Your task to perform on an android device: read, delete, or share a saved page in the chrome app Image 0: 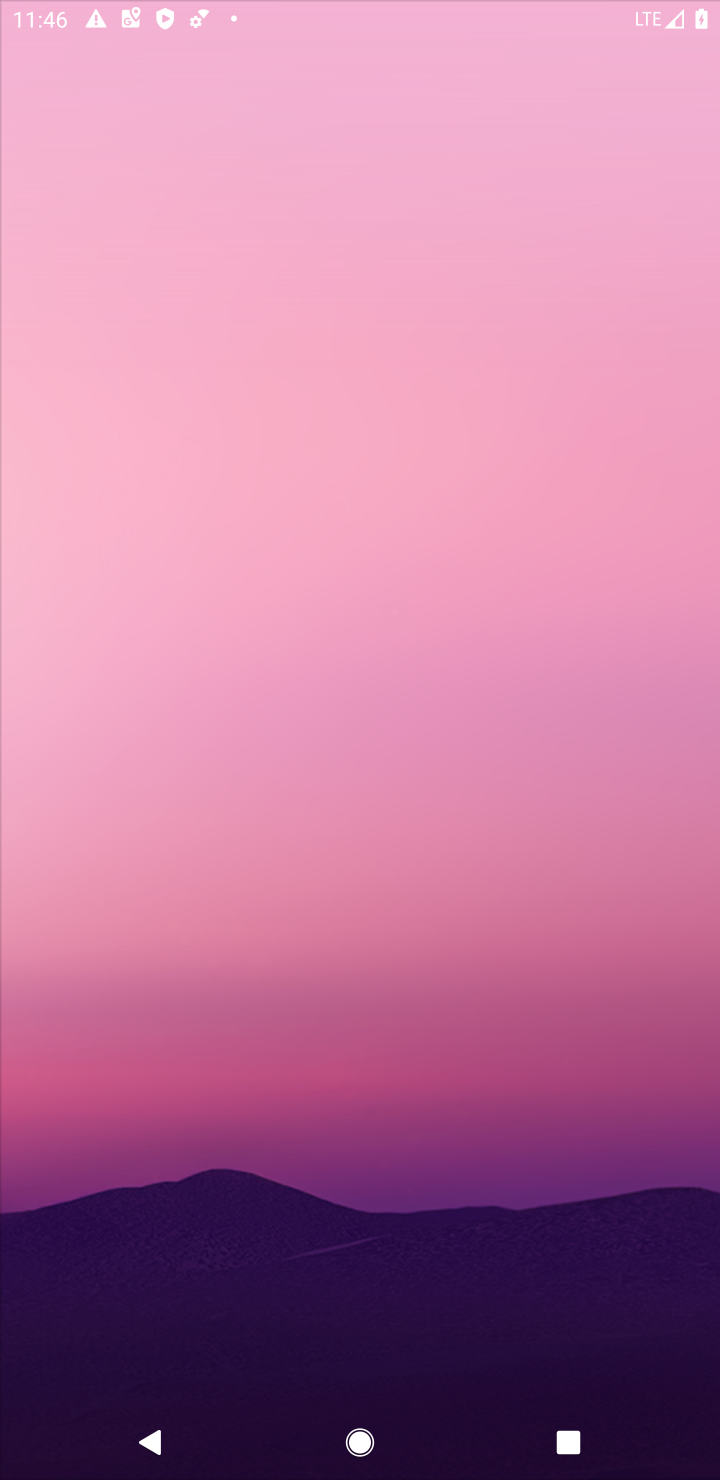
Step 0: click (415, 562)
Your task to perform on an android device: read, delete, or share a saved page in the chrome app Image 1: 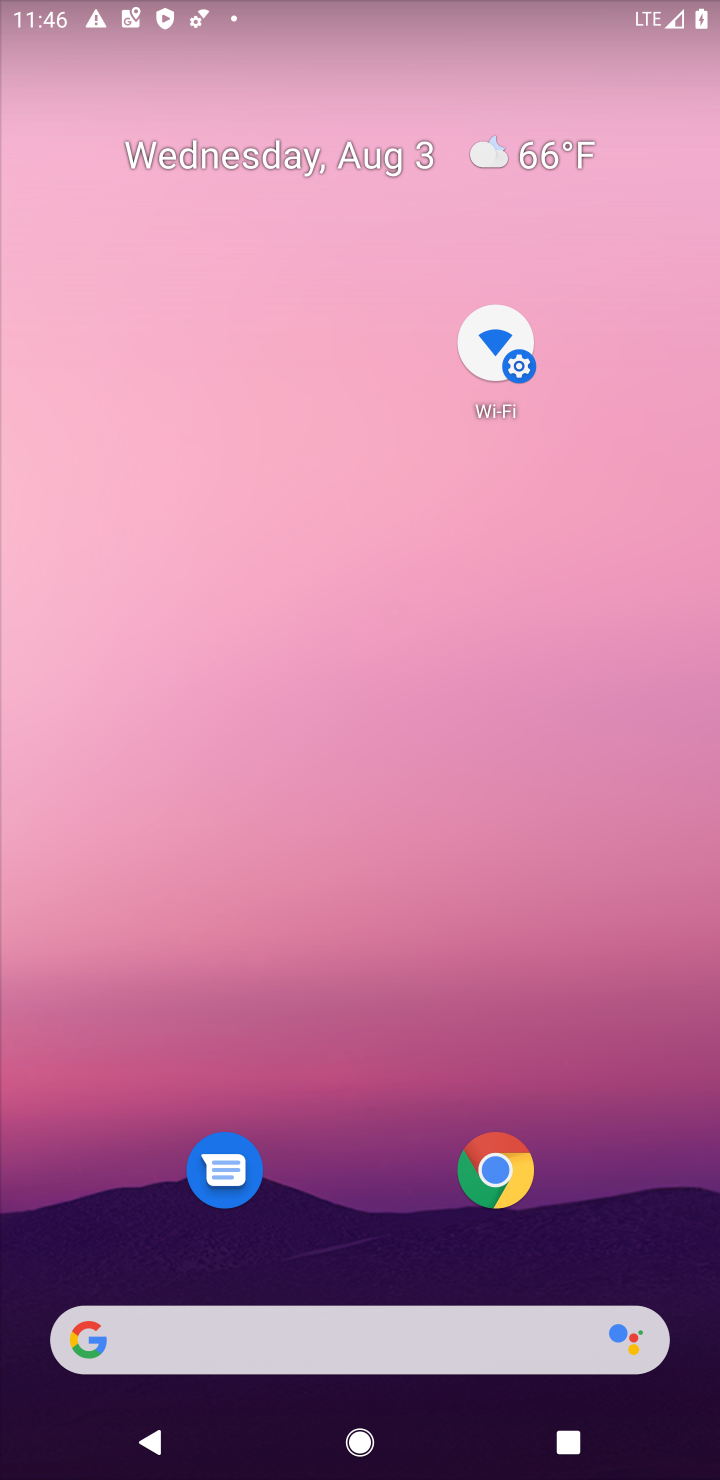
Step 1: drag from (316, 1178) to (220, 279)
Your task to perform on an android device: read, delete, or share a saved page in the chrome app Image 2: 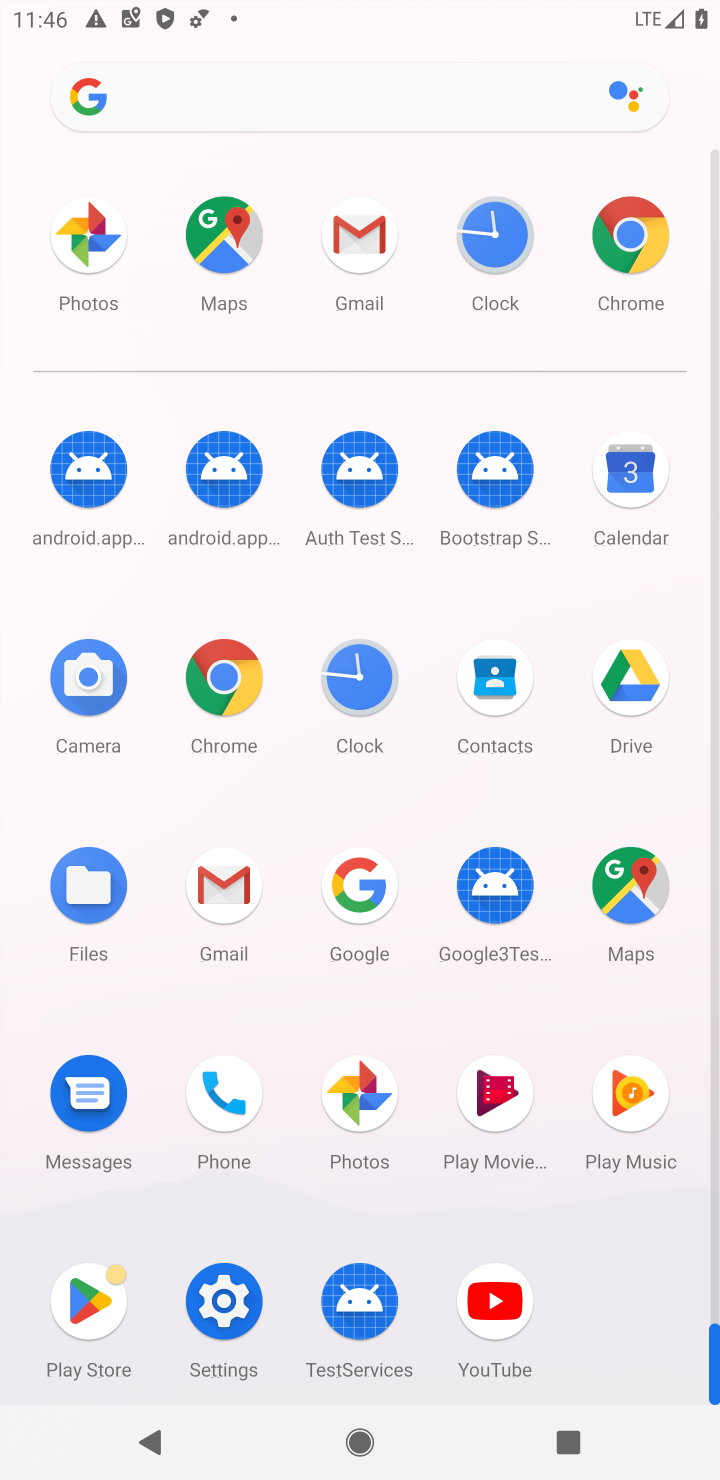
Step 2: click (235, 669)
Your task to perform on an android device: read, delete, or share a saved page in the chrome app Image 3: 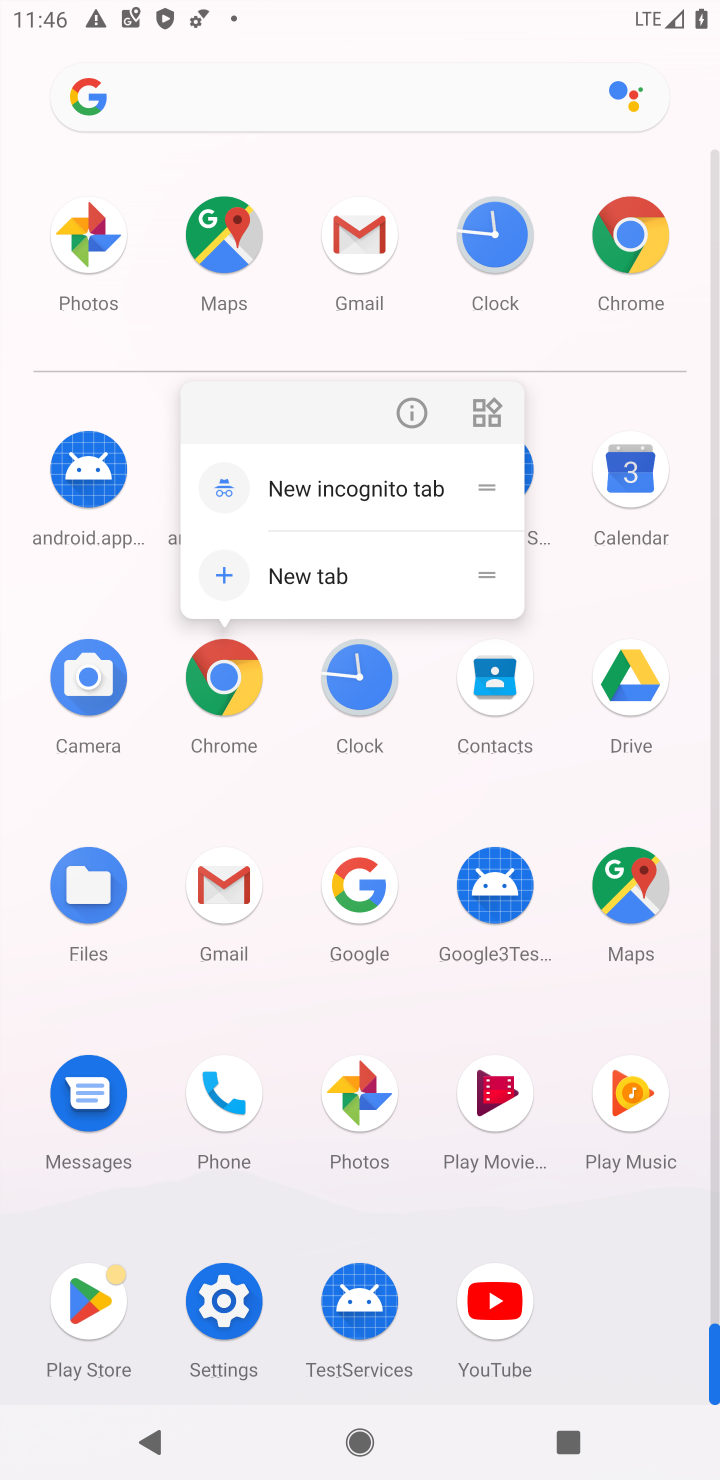
Step 3: click (394, 420)
Your task to perform on an android device: read, delete, or share a saved page in the chrome app Image 4: 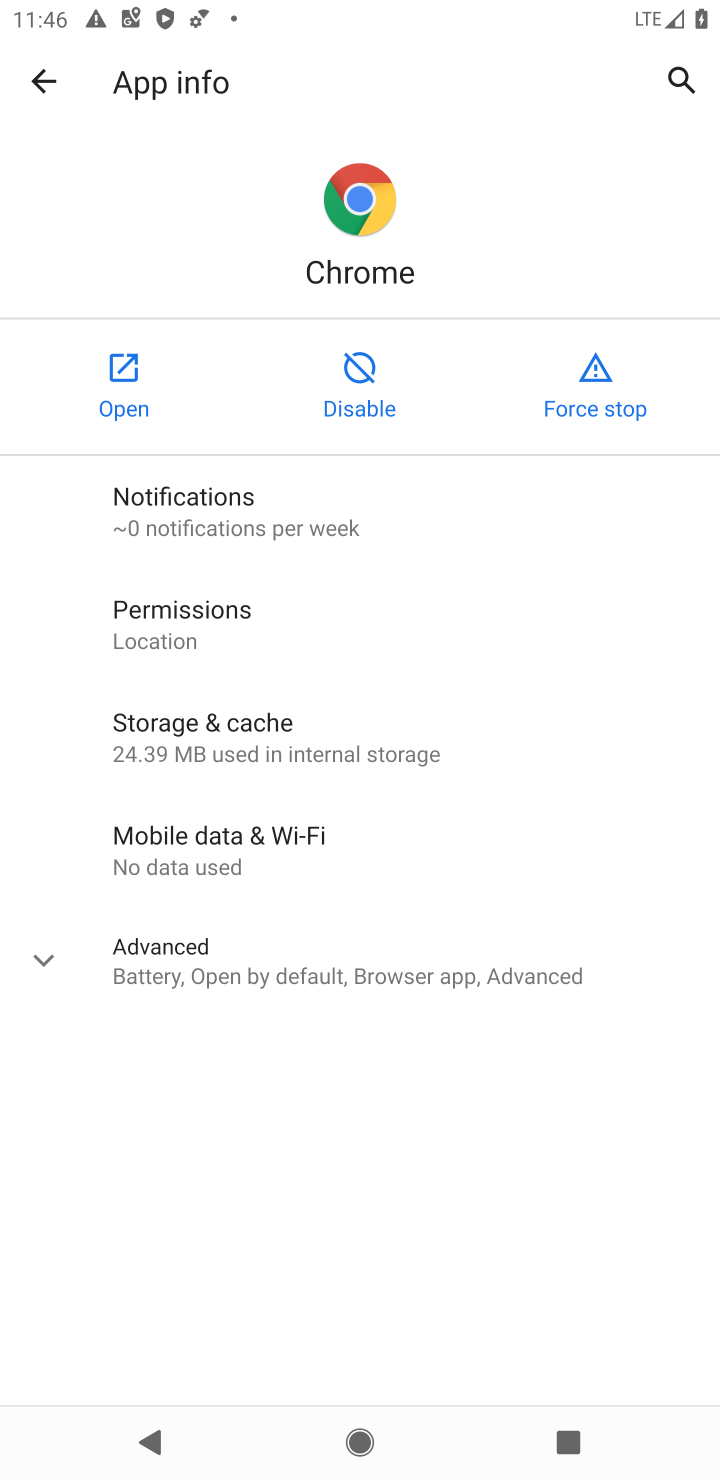
Step 4: click (115, 365)
Your task to perform on an android device: read, delete, or share a saved page in the chrome app Image 5: 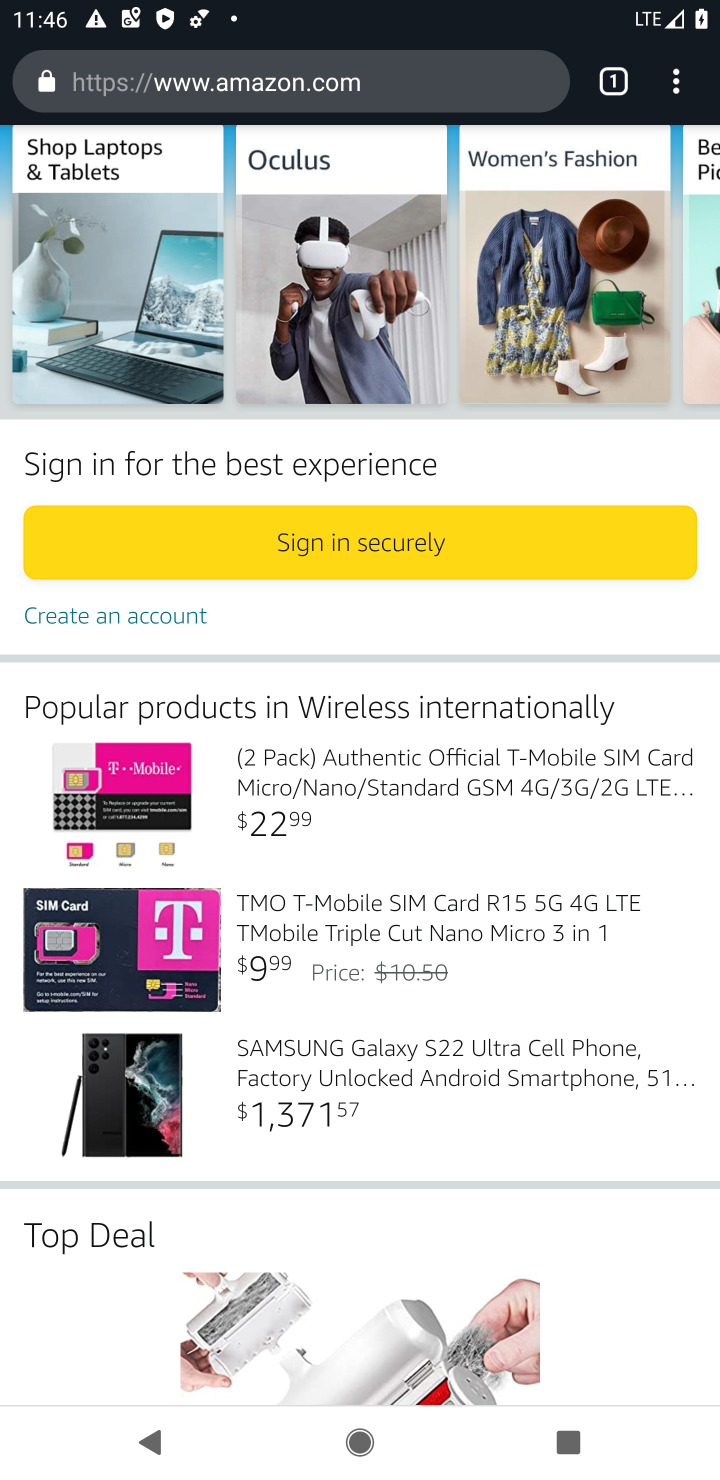
Step 5: drag from (638, 101) to (517, 542)
Your task to perform on an android device: read, delete, or share a saved page in the chrome app Image 6: 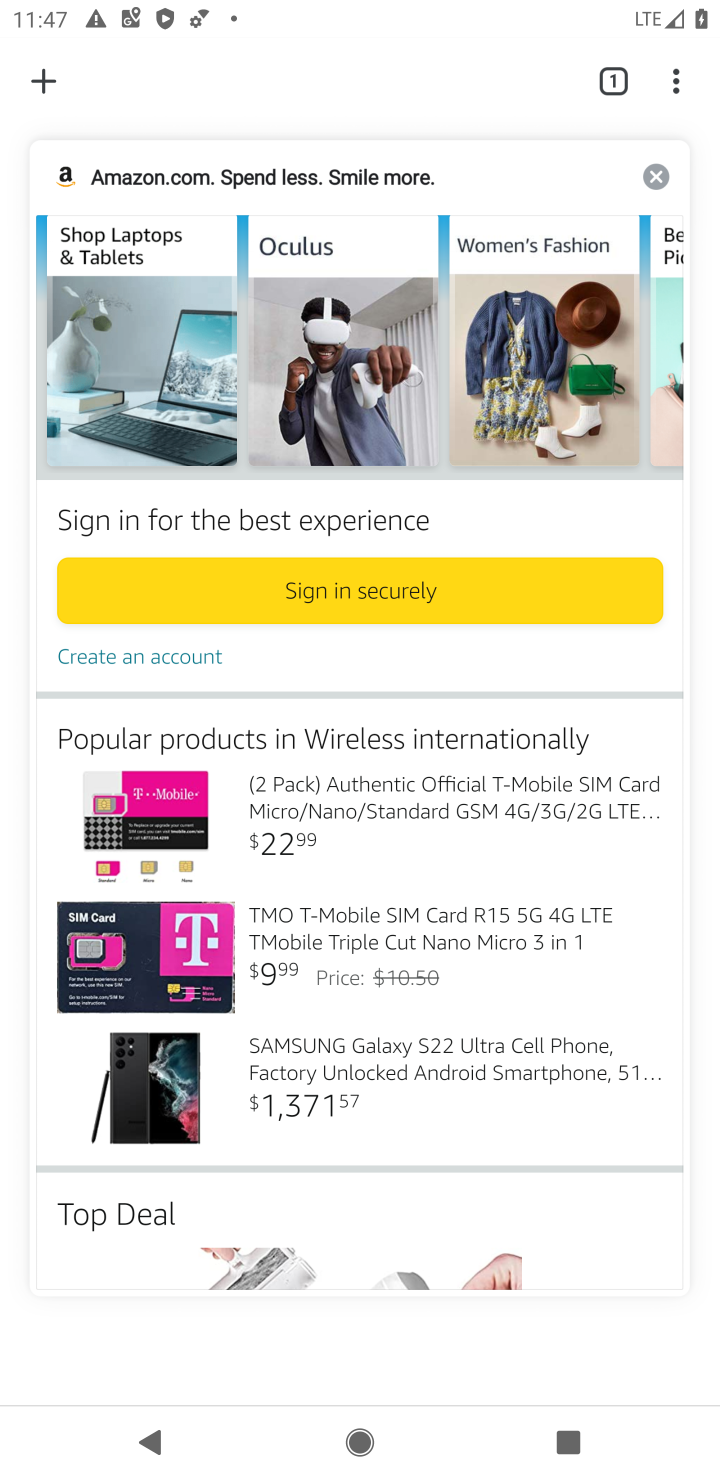
Step 6: click (490, 428)
Your task to perform on an android device: read, delete, or share a saved page in the chrome app Image 7: 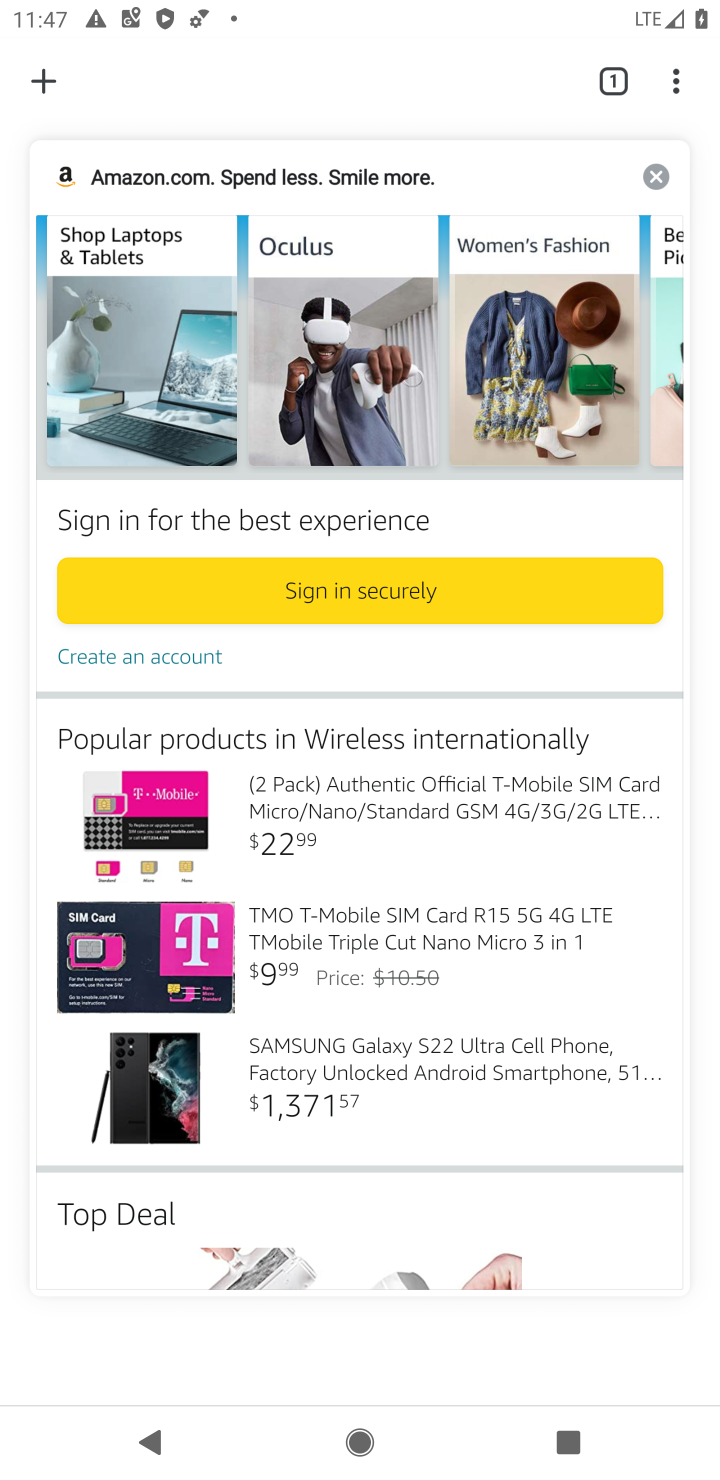
Step 7: click (570, 674)
Your task to perform on an android device: read, delete, or share a saved page in the chrome app Image 8: 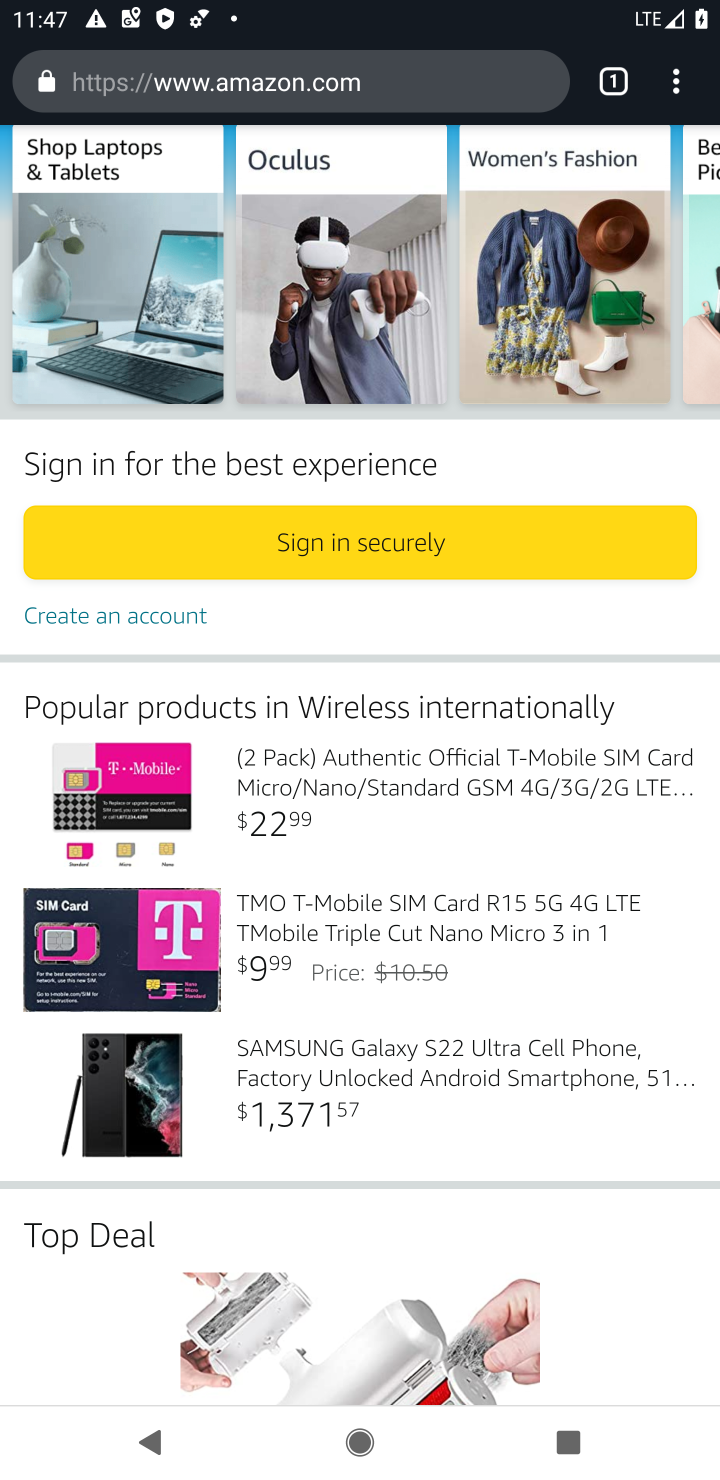
Step 8: drag from (675, 95) to (500, 318)
Your task to perform on an android device: read, delete, or share a saved page in the chrome app Image 9: 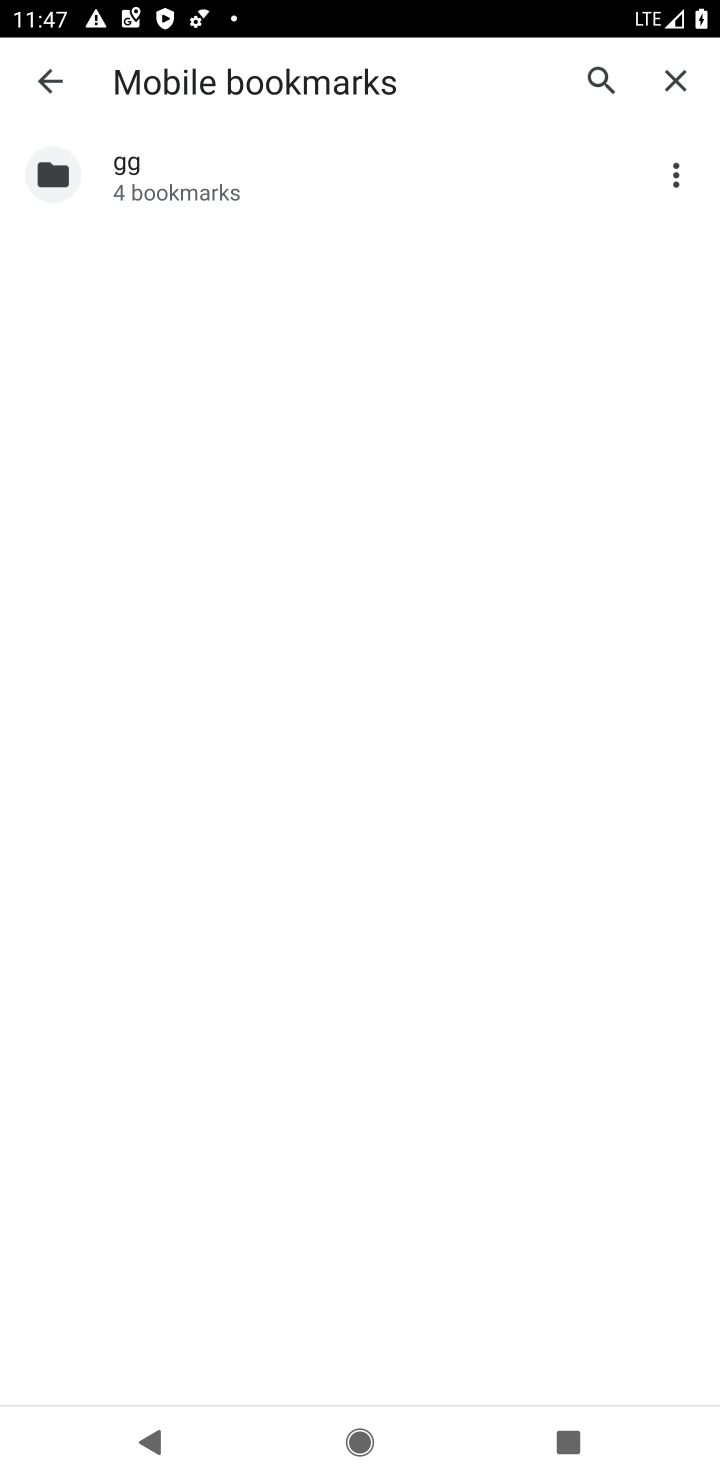
Step 9: drag from (226, 1011) to (290, 462)
Your task to perform on an android device: read, delete, or share a saved page in the chrome app Image 10: 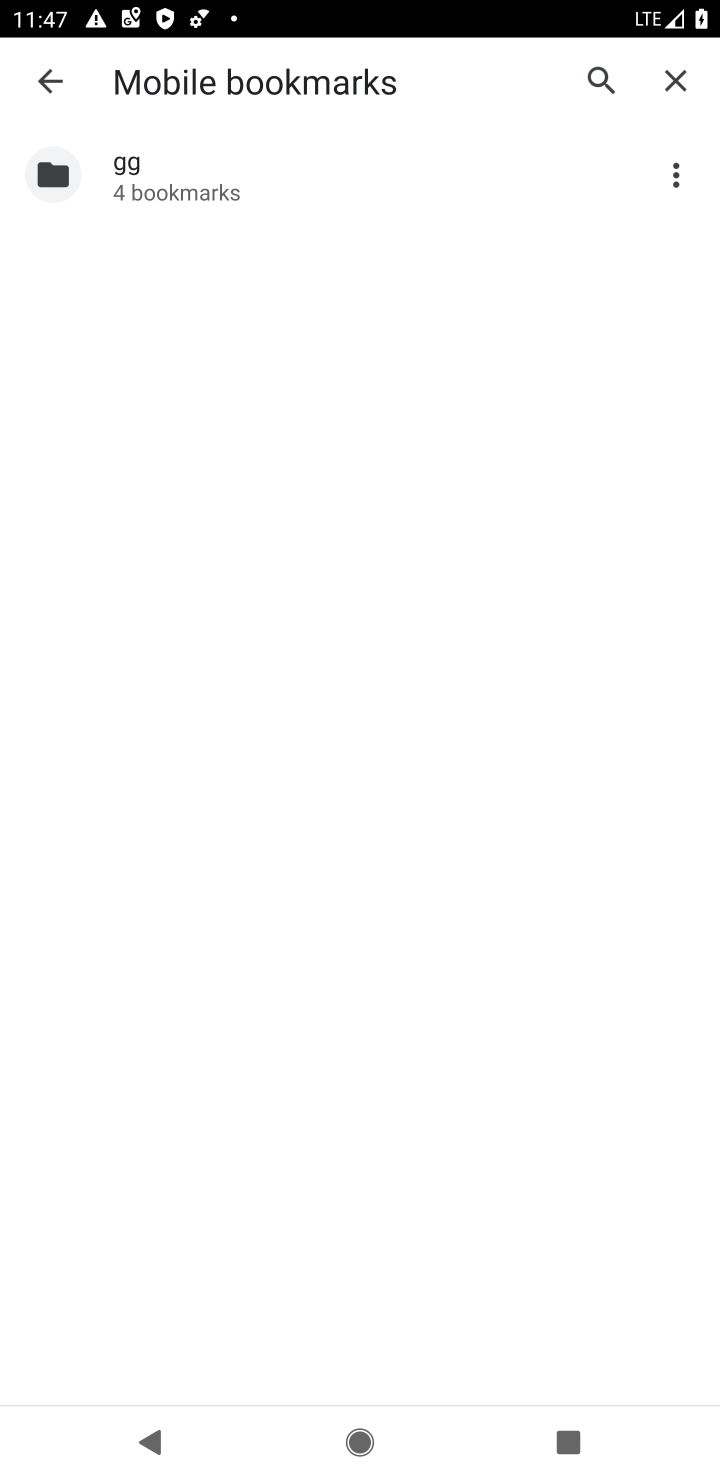
Step 10: click (215, 167)
Your task to perform on an android device: read, delete, or share a saved page in the chrome app Image 11: 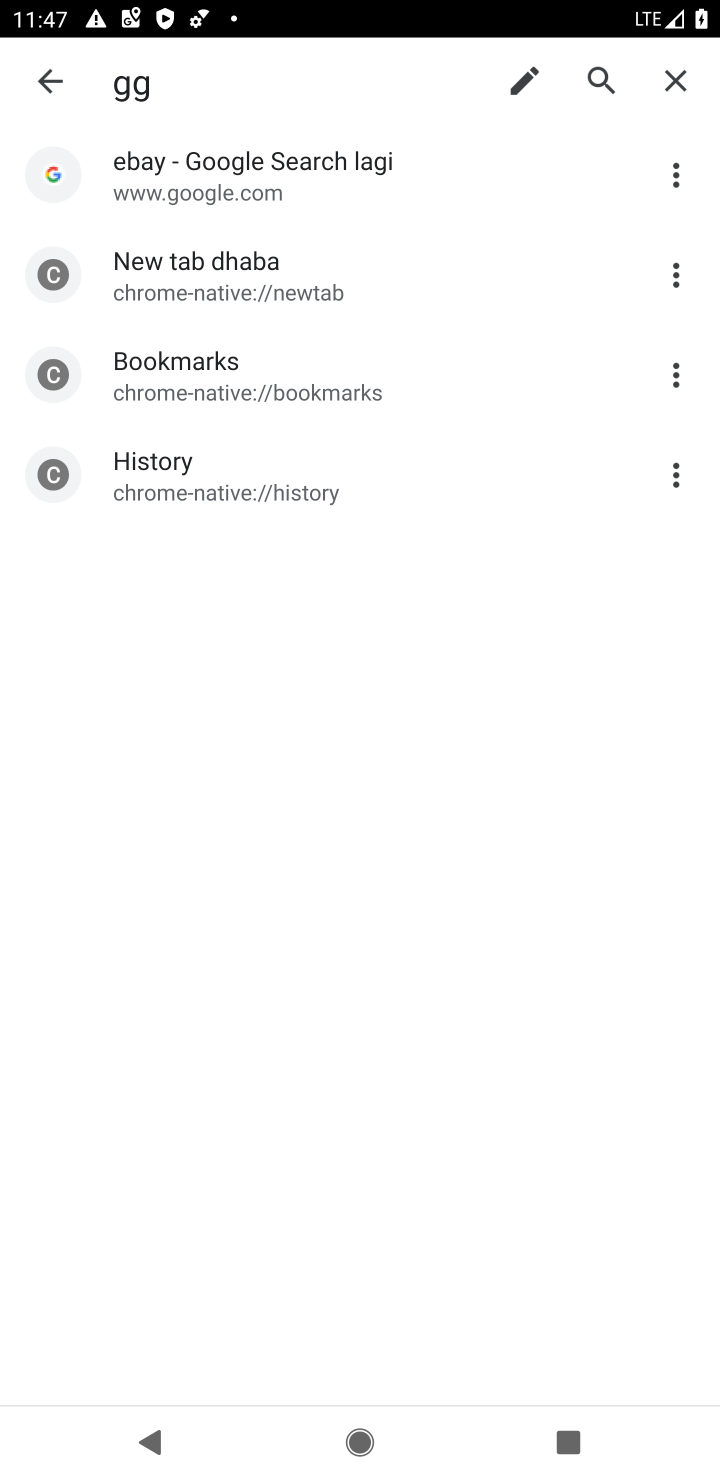
Step 11: click (193, 254)
Your task to perform on an android device: read, delete, or share a saved page in the chrome app Image 12: 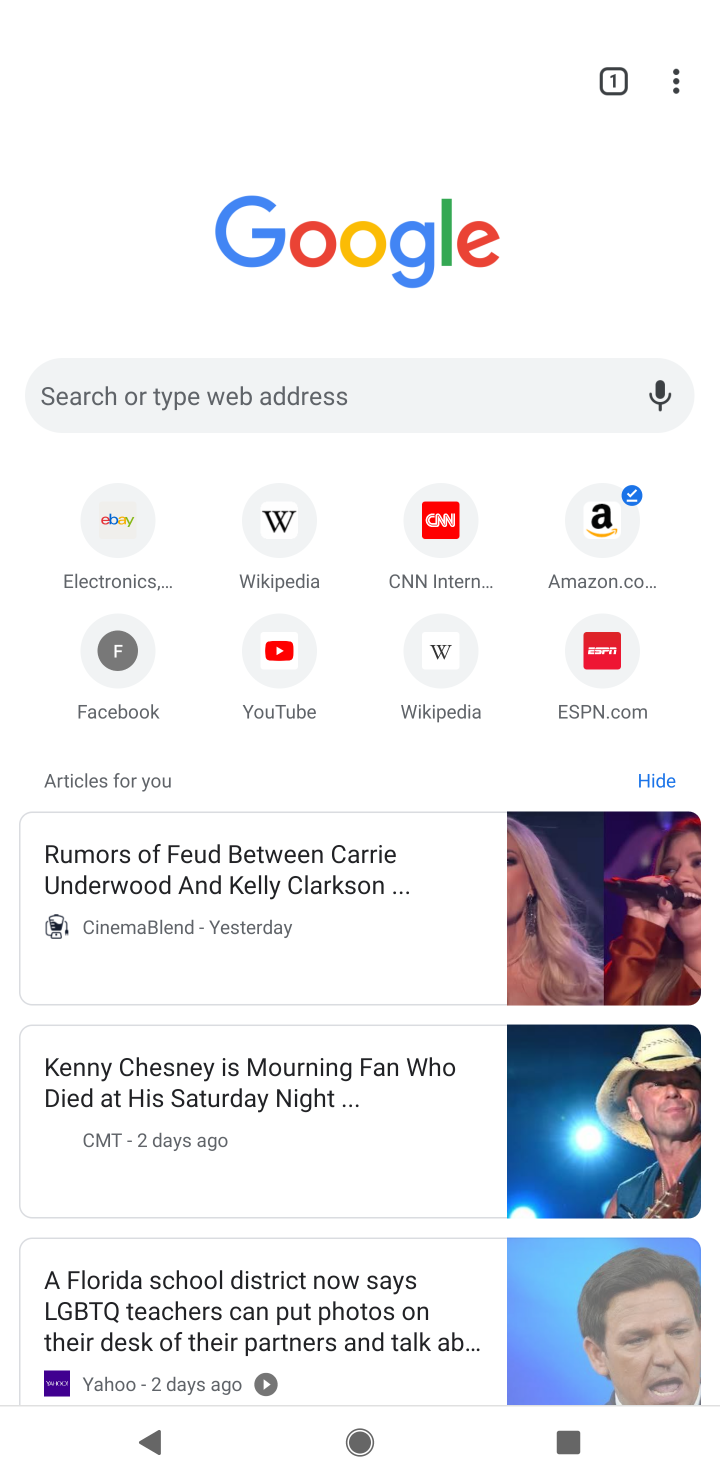
Step 12: click (211, 263)
Your task to perform on an android device: read, delete, or share a saved page in the chrome app Image 13: 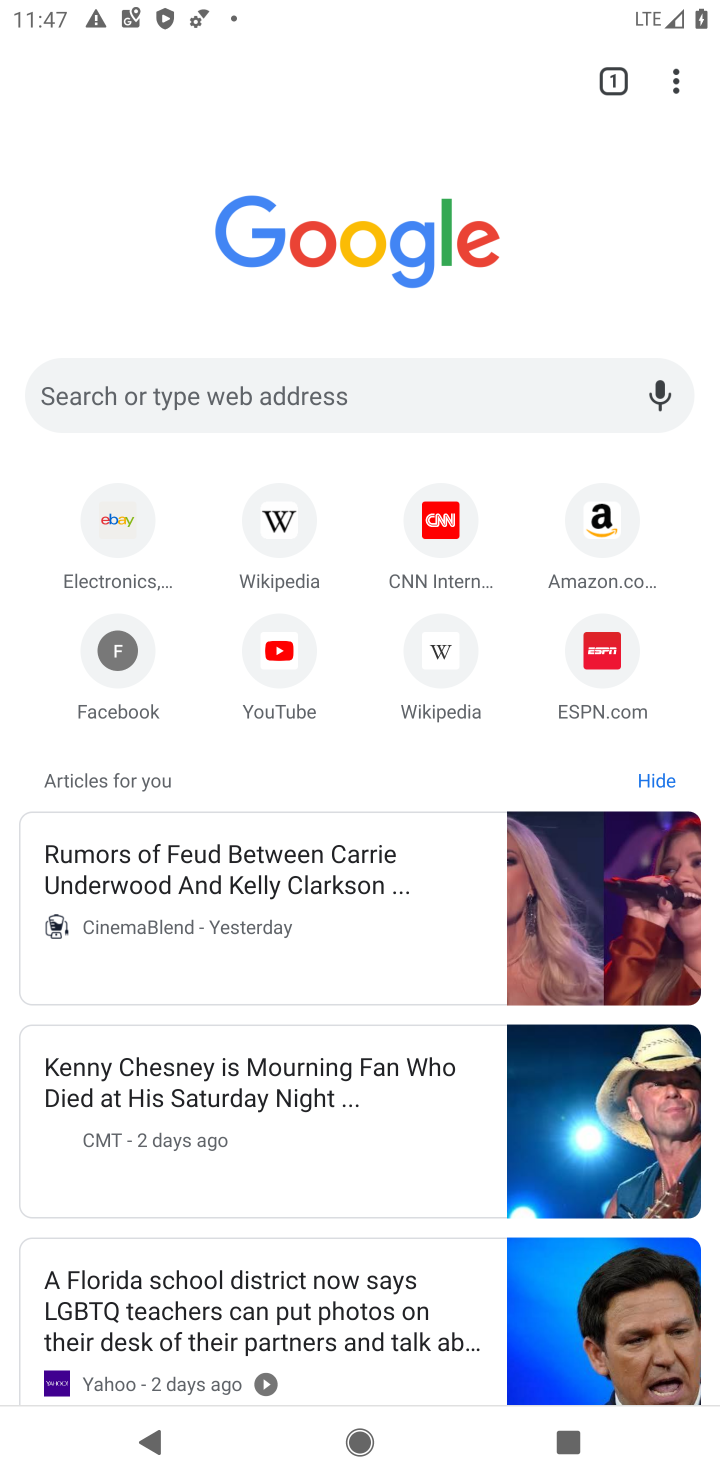
Step 13: task complete